Your task to perform on an android device: open a new tab in the chrome app Image 0: 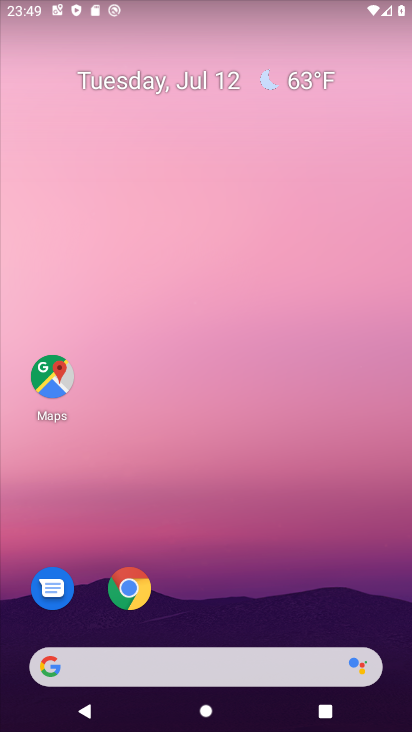
Step 0: click (114, 585)
Your task to perform on an android device: open a new tab in the chrome app Image 1: 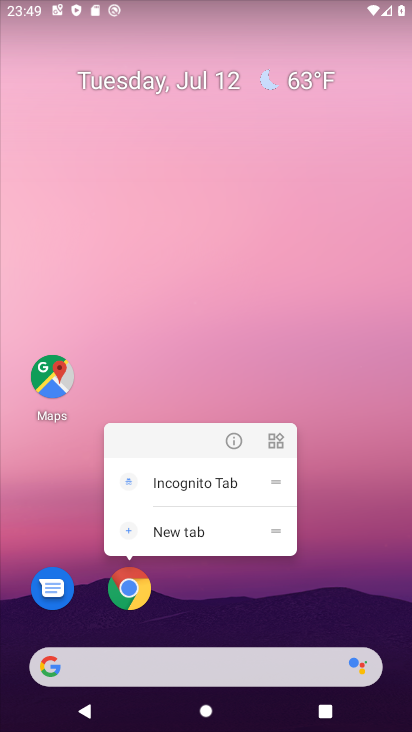
Step 1: click (125, 573)
Your task to perform on an android device: open a new tab in the chrome app Image 2: 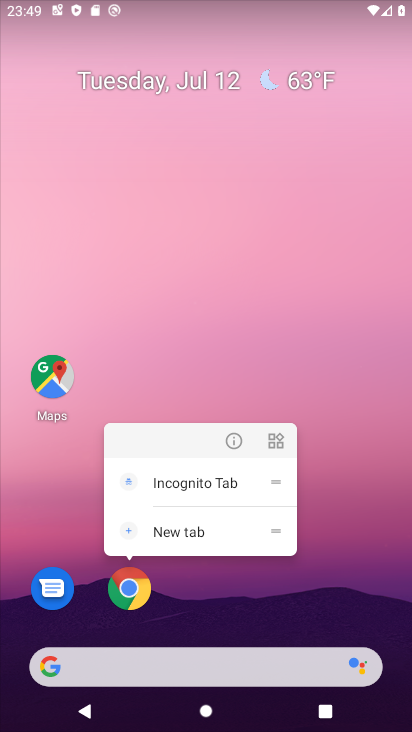
Step 2: click (130, 584)
Your task to perform on an android device: open a new tab in the chrome app Image 3: 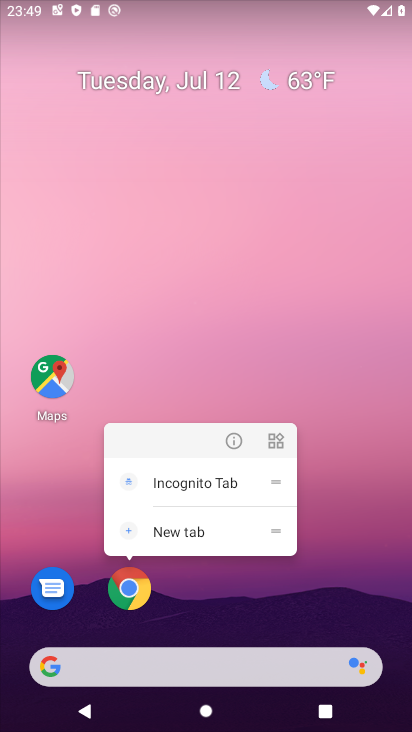
Step 3: click (124, 594)
Your task to perform on an android device: open a new tab in the chrome app Image 4: 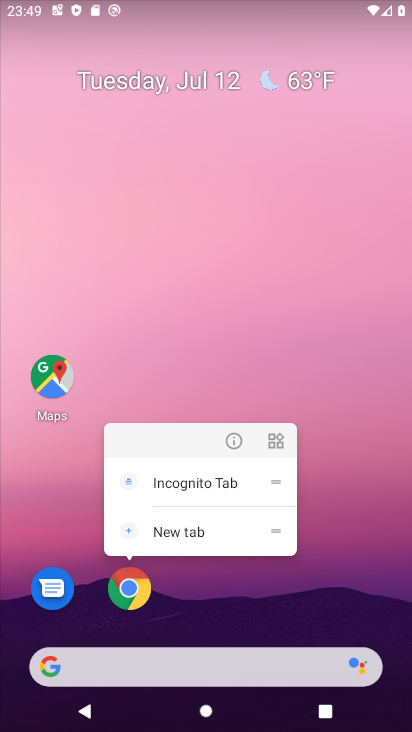
Step 4: task complete